Your task to perform on an android device: Is it going to rain this weekend? Image 0: 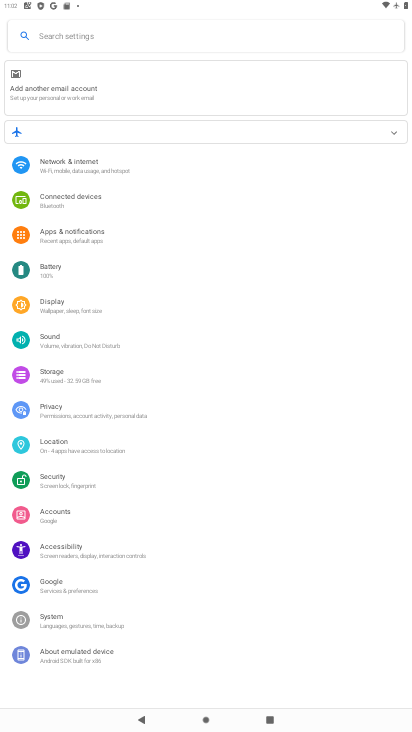
Step 0: press home button
Your task to perform on an android device: Is it going to rain this weekend? Image 1: 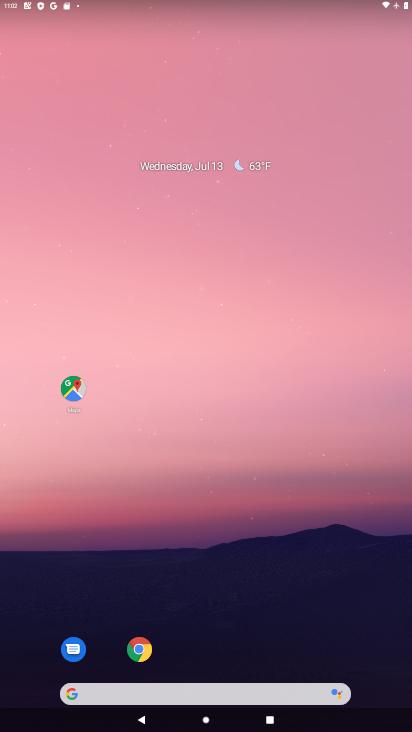
Step 1: drag from (257, 650) to (229, 251)
Your task to perform on an android device: Is it going to rain this weekend? Image 2: 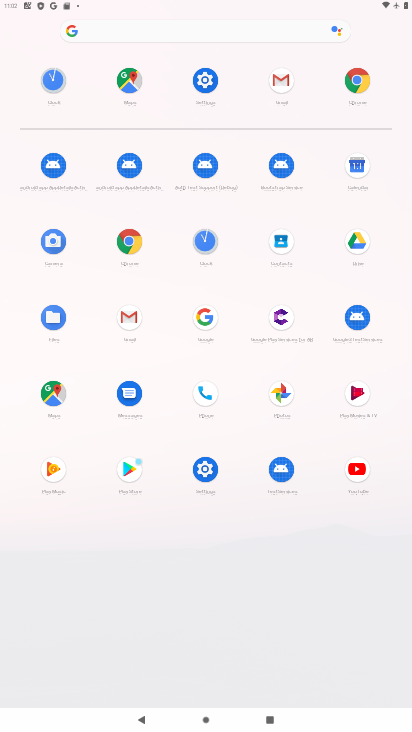
Step 2: click (363, 75)
Your task to perform on an android device: Is it going to rain this weekend? Image 3: 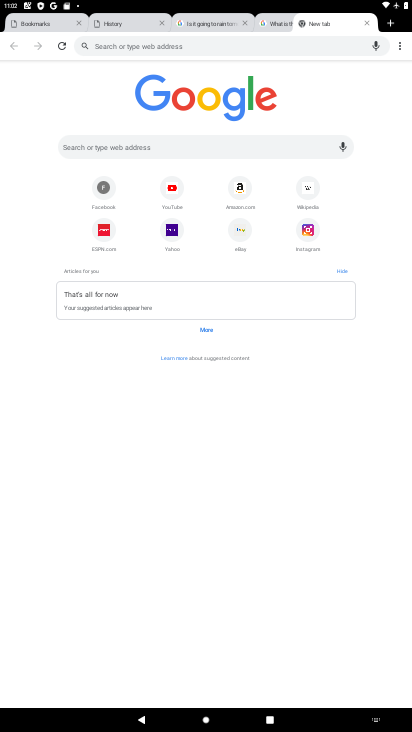
Step 3: click (399, 23)
Your task to perform on an android device: Is it going to rain this weekend? Image 4: 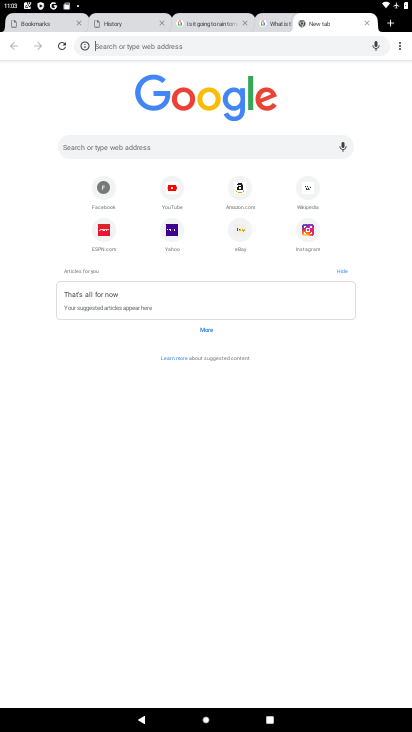
Step 4: click (225, 135)
Your task to perform on an android device: Is it going to rain this weekend? Image 5: 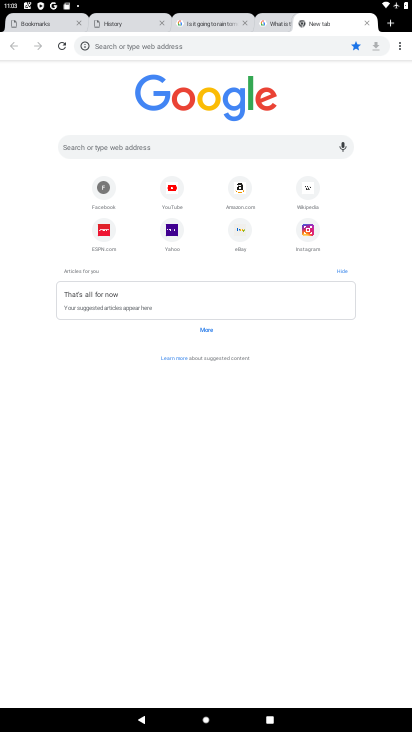
Step 5: type "Is it going to rain this weekend "
Your task to perform on an android device: Is it going to rain this weekend? Image 6: 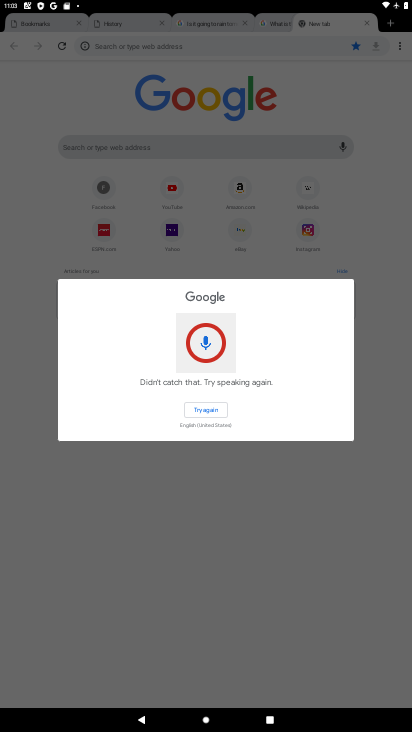
Step 6: click (139, 502)
Your task to perform on an android device: Is it going to rain this weekend? Image 7: 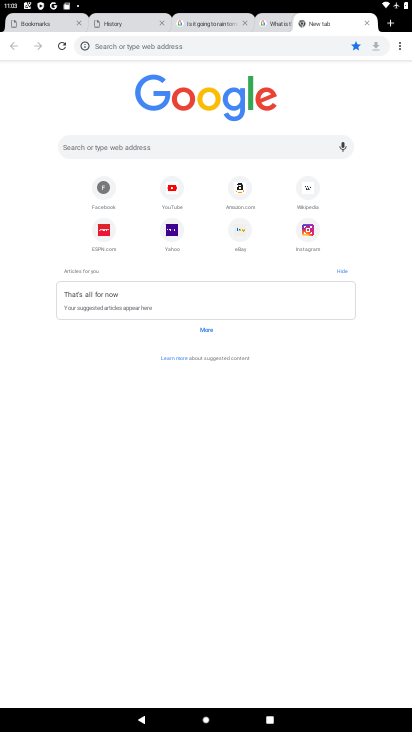
Step 7: click (207, 141)
Your task to perform on an android device: Is it going to rain this weekend? Image 8: 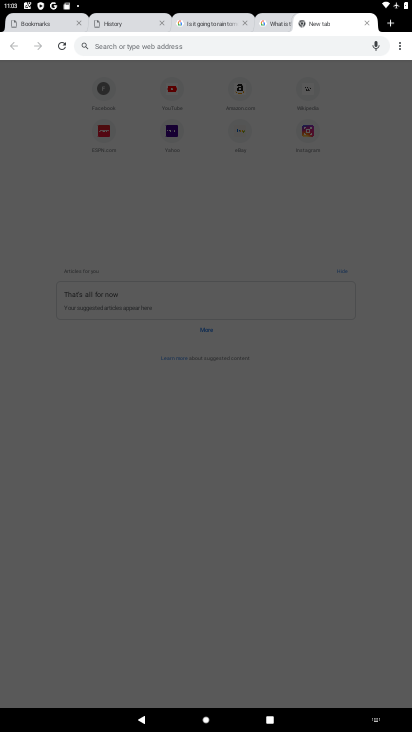
Step 8: type "Is it going to rain this weekend "
Your task to perform on an android device: Is it going to rain this weekend? Image 9: 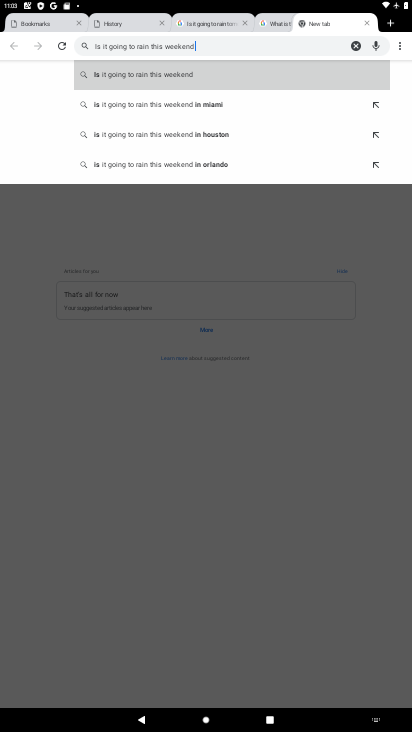
Step 9: click (195, 77)
Your task to perform on an android device: Is it going to rain this weekend? Image 10: 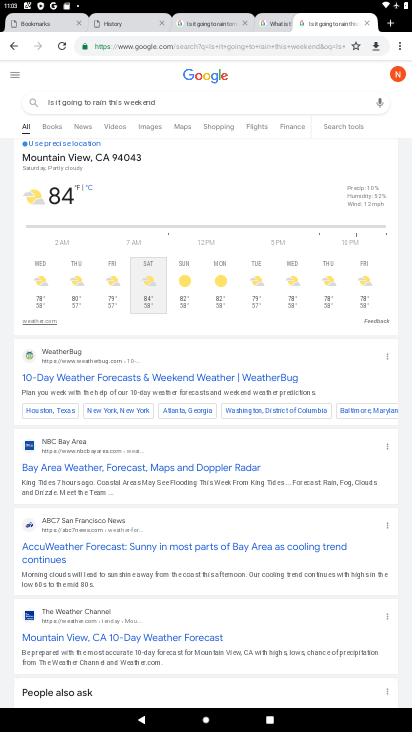
Step 10: task complete